Your task to perform on an android device: toggle notifications settings in the gmail app Image 0: 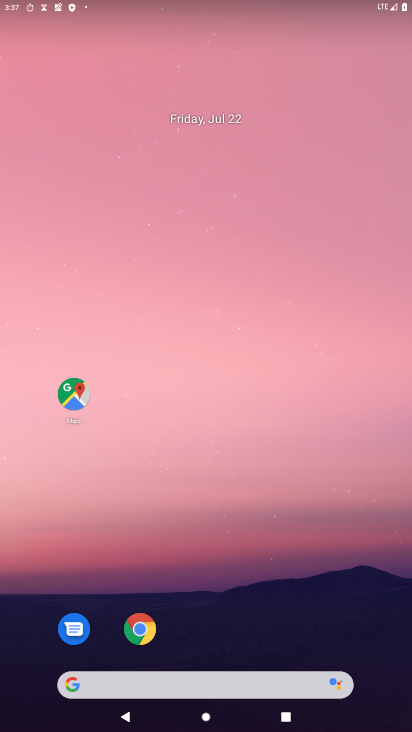
Step 0: drag from (269, 698) to (213, 0)
Your task to perform on an android device: toggle notifications settings in the gmail app Image 1: 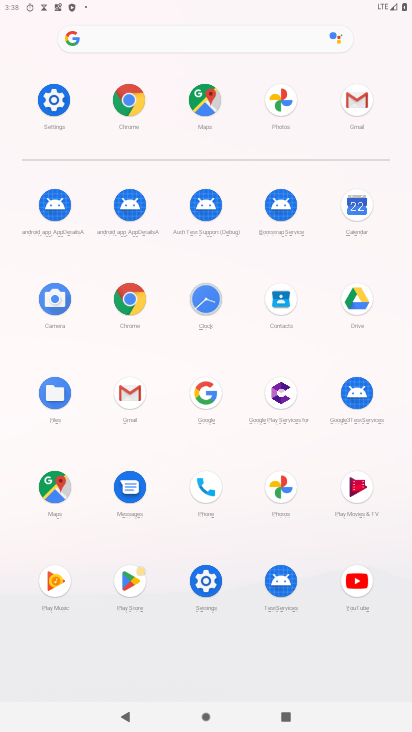
Step 1: click (122, 394)
Your task to perform on an android device: toggle notifications settings in the gmail app Image 2: 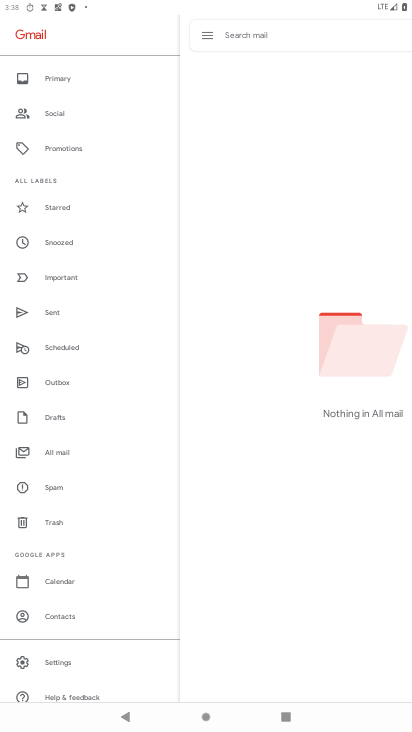
Step 2: drag from (66, 674) to (61, 325)
Your task to perform on an android device: toggle notifications settings in the gmail app Image 3: 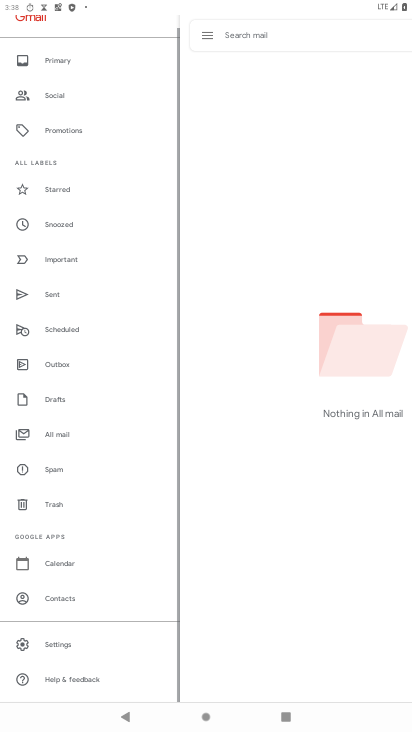
Step 3: click (85, 646)
Your task to perform on an android device: toggle notifications settings in the gmail app Image 4: 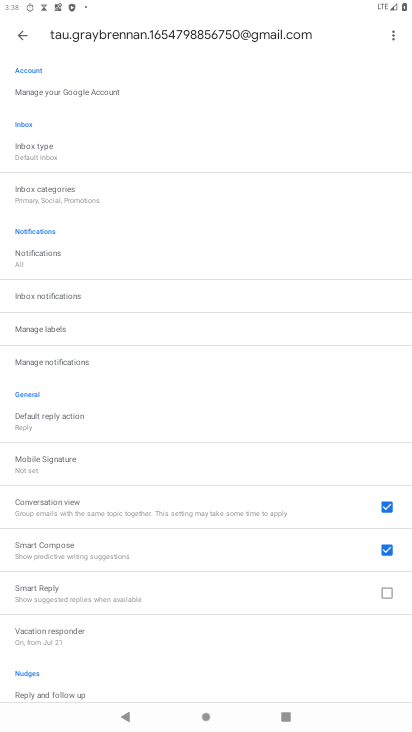
Step 4: click (71, 362)
Your task to perform on an android device: toggle notifications settings in the gmail app Image 5: 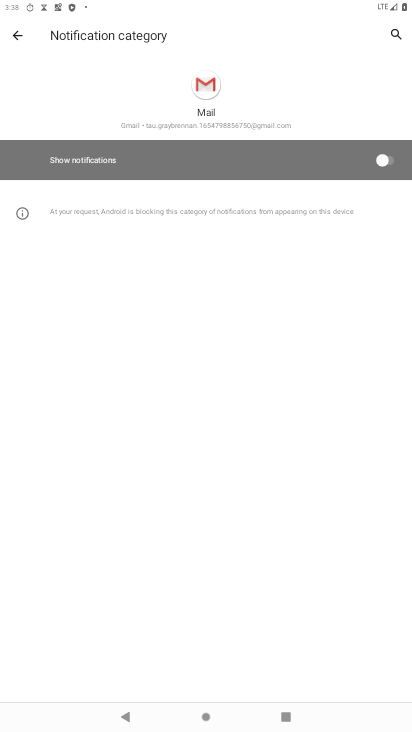
Step 5: click (385, 158)
Your task to perform on an android device: toggle notifications settings in the gmail app Image 6: 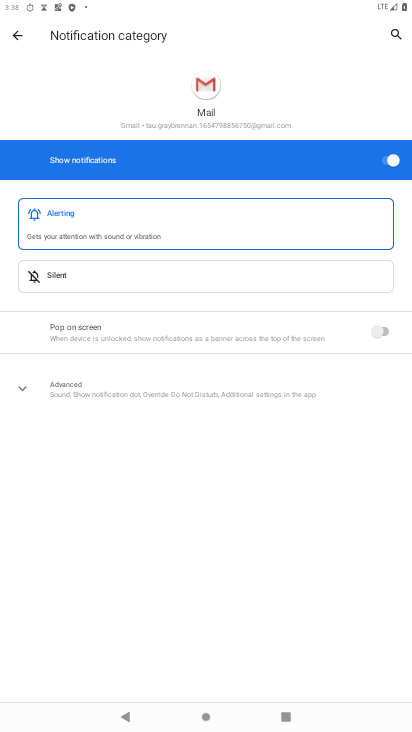
Step 6: task complete